Your task to perform on an android device: What is the news today? Image 0: 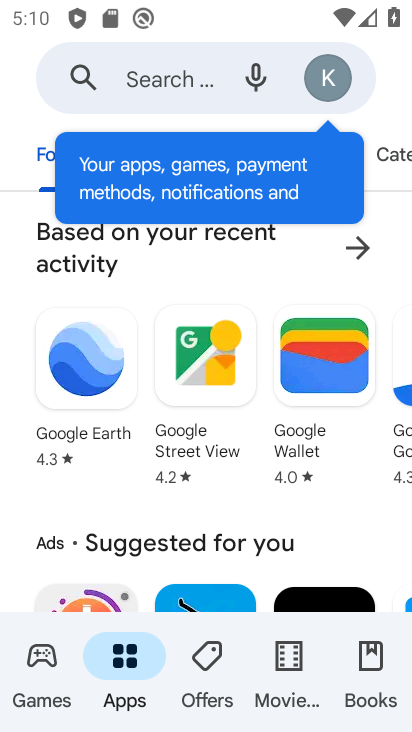
Step 0: press home button
Your task to perform on an android device: What is the news today? Image 1: 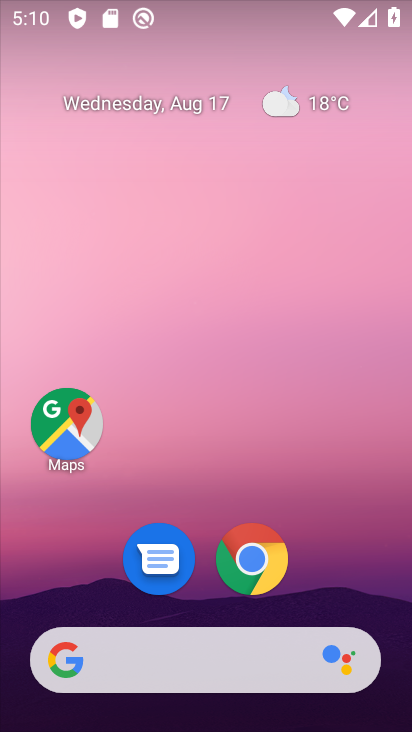
Step 1: click (249, 571)
Your task to perform on an android device: What is the news today? Image 2: 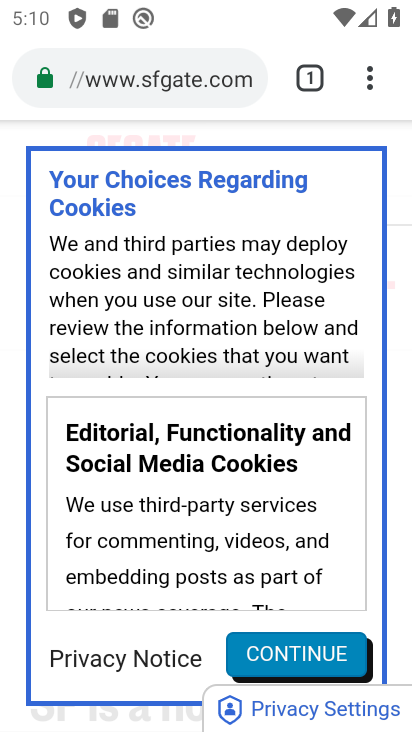
Step 2: click (190, 90)
Your task to perform on an android device: What is the news today? Image 3: 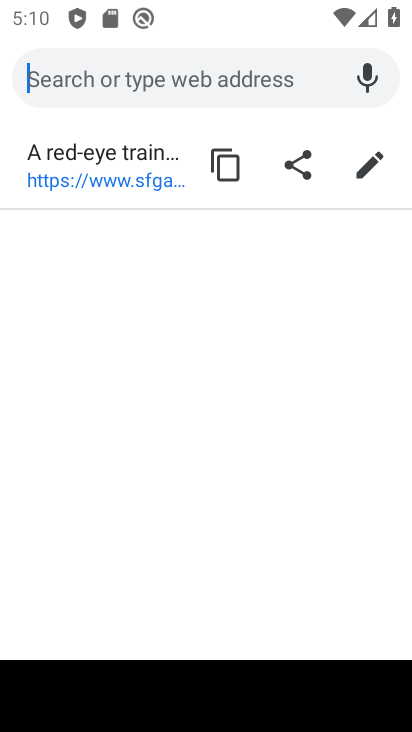
Step 3: type "news today"
Your task to perform on an android device: What is the news today? Image 4: 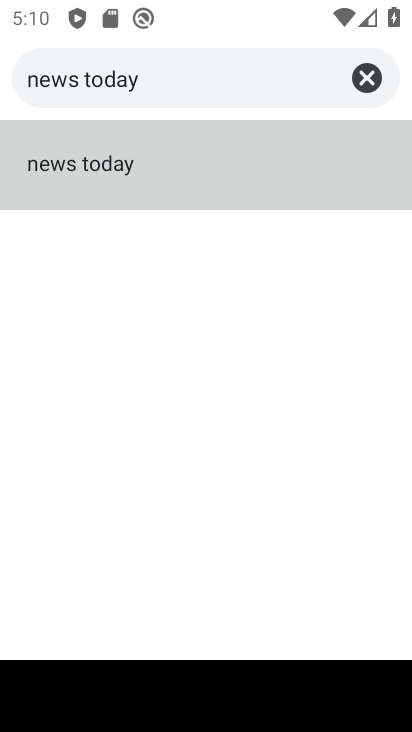
Step 4: click (222, 191)
Your task to perform on an android device: What is the news today? Image 5: 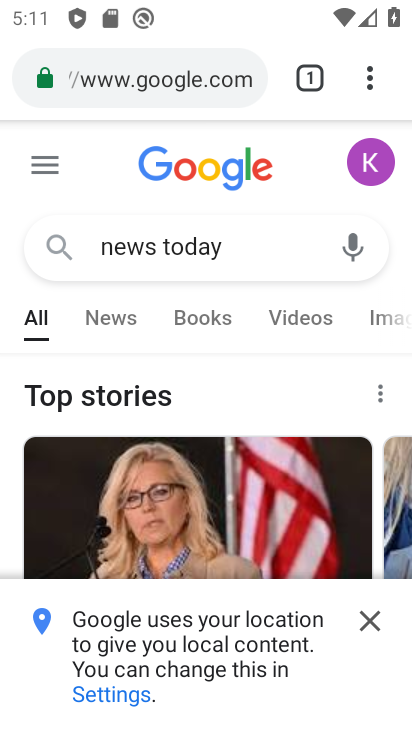
Step 5: task complete